Your task to perform on an android device: change timer sound Image 0: 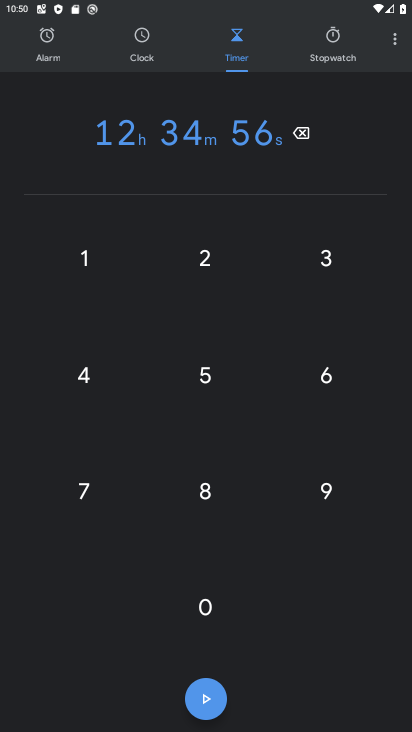
Step 0: click (398, 38)
Your task to perform on an android device: change timer sound Image 1: 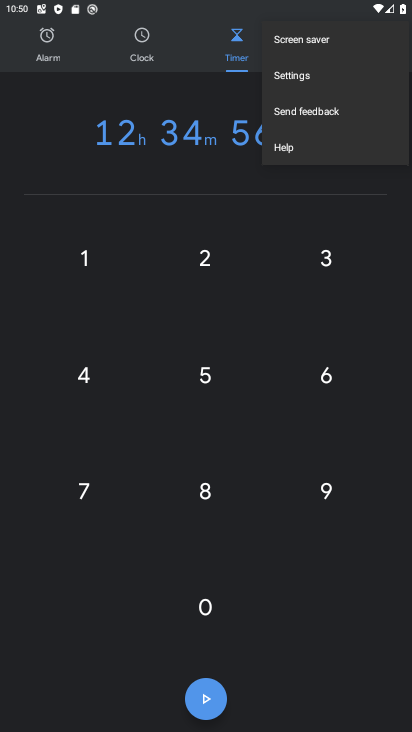
Step 1: click (319, 82)
Your task to perform on an android device: change timer sound Image 2: 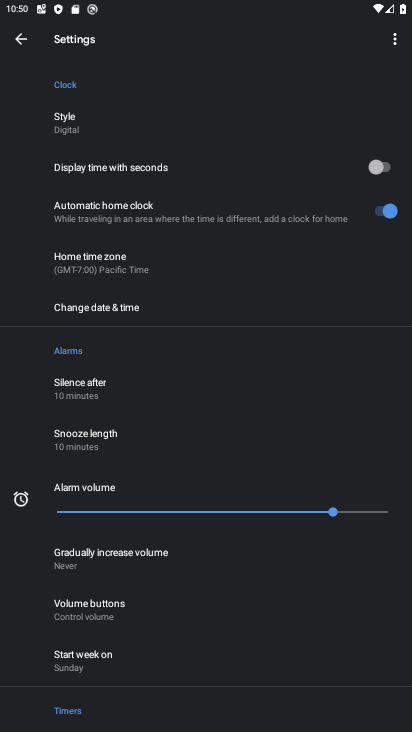
Step 2: drag from (134, 533) to (139, 313)
Your task to perform on an android device: change timer sound Image 3: 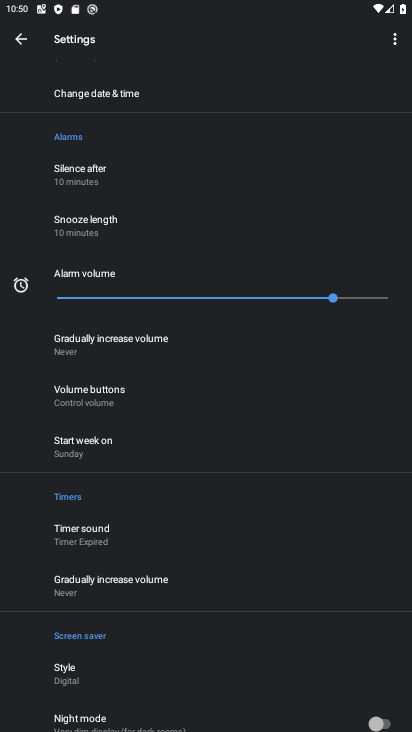
Step 3: click (136, 518)
Your task to perform on an android device: change timer sound Image 4: 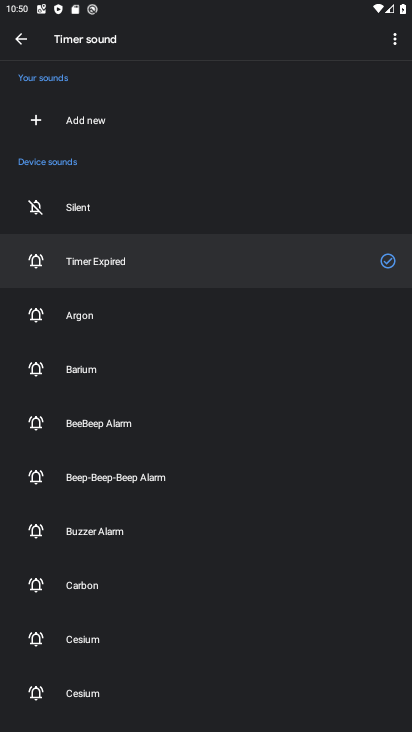
Step 4: click (144, 535)
Your task to perform on an android device: change timer sound Image 5: 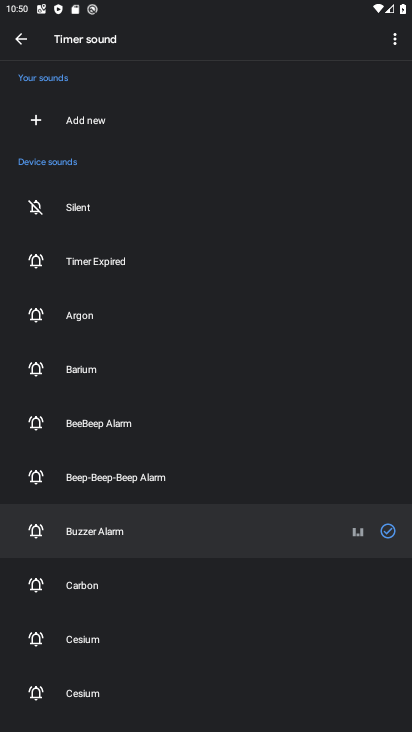
Step 5: task complete